Your task to perform on an android device: Open internet settings Image 0: 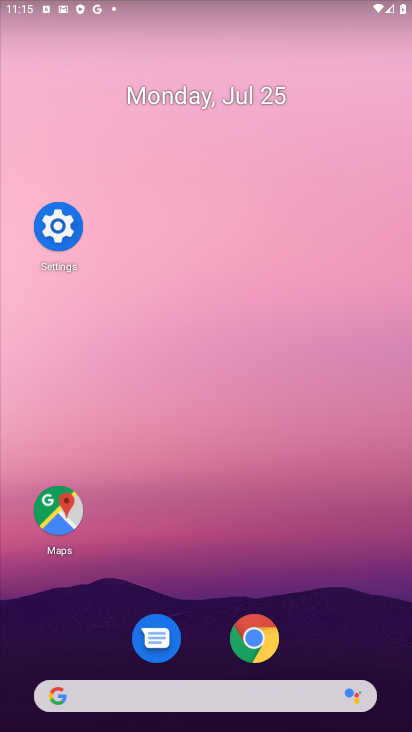
Step 0: click (54, 218)
Your task to perform on an android device: Open internet settings Image 1: 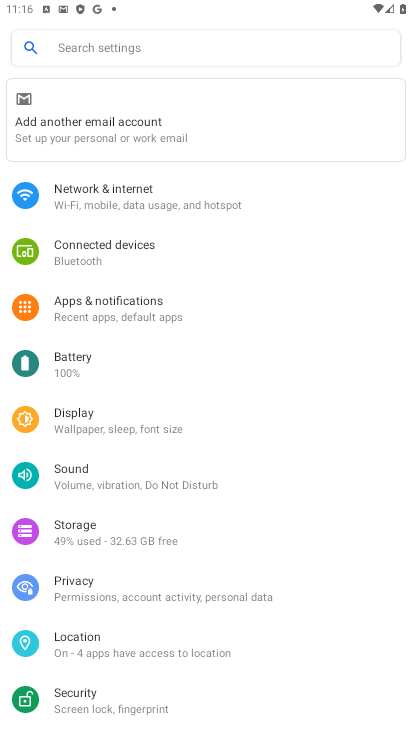
Step 1: click (180, 186)
Your task to perform on an android device: Open internet settings Image 2: 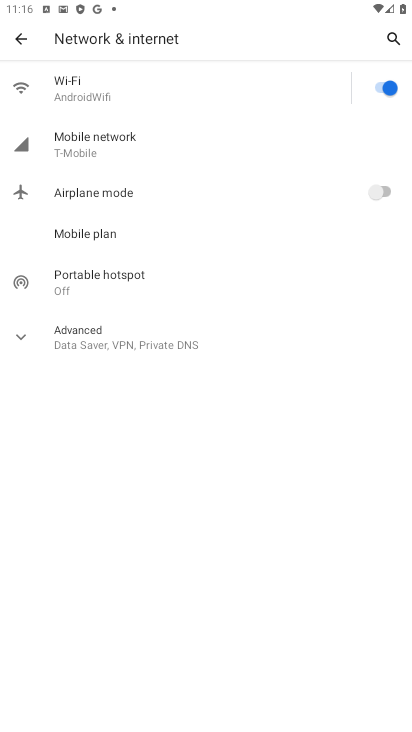
Step 2: task complete